Your task to perform on an android device: What's the weather? Image 0: 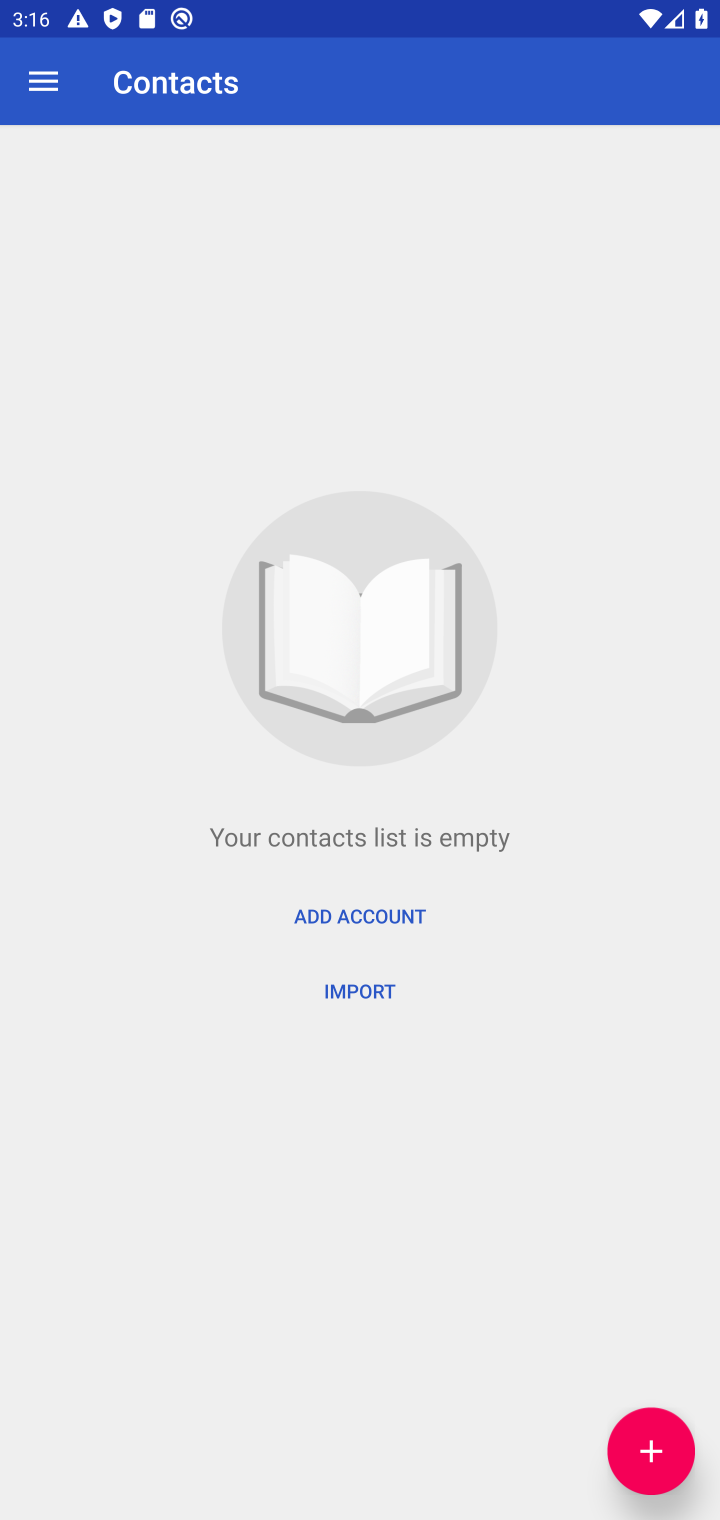
Step 0: press home button
Your task to perform on an android device: What's the weather? Image 1: 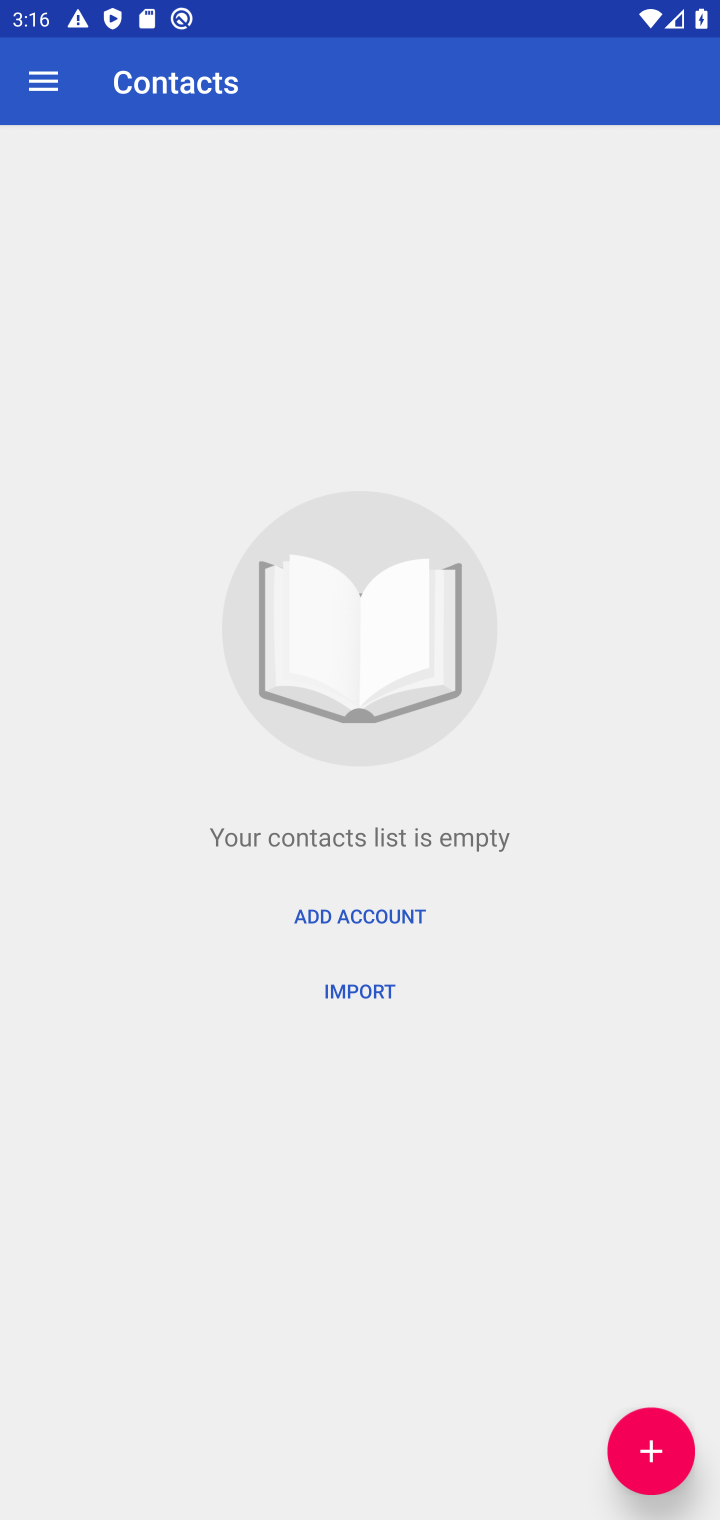
Step 1: press home button
Your task to perform on an android device: What's the weather? Image 2: 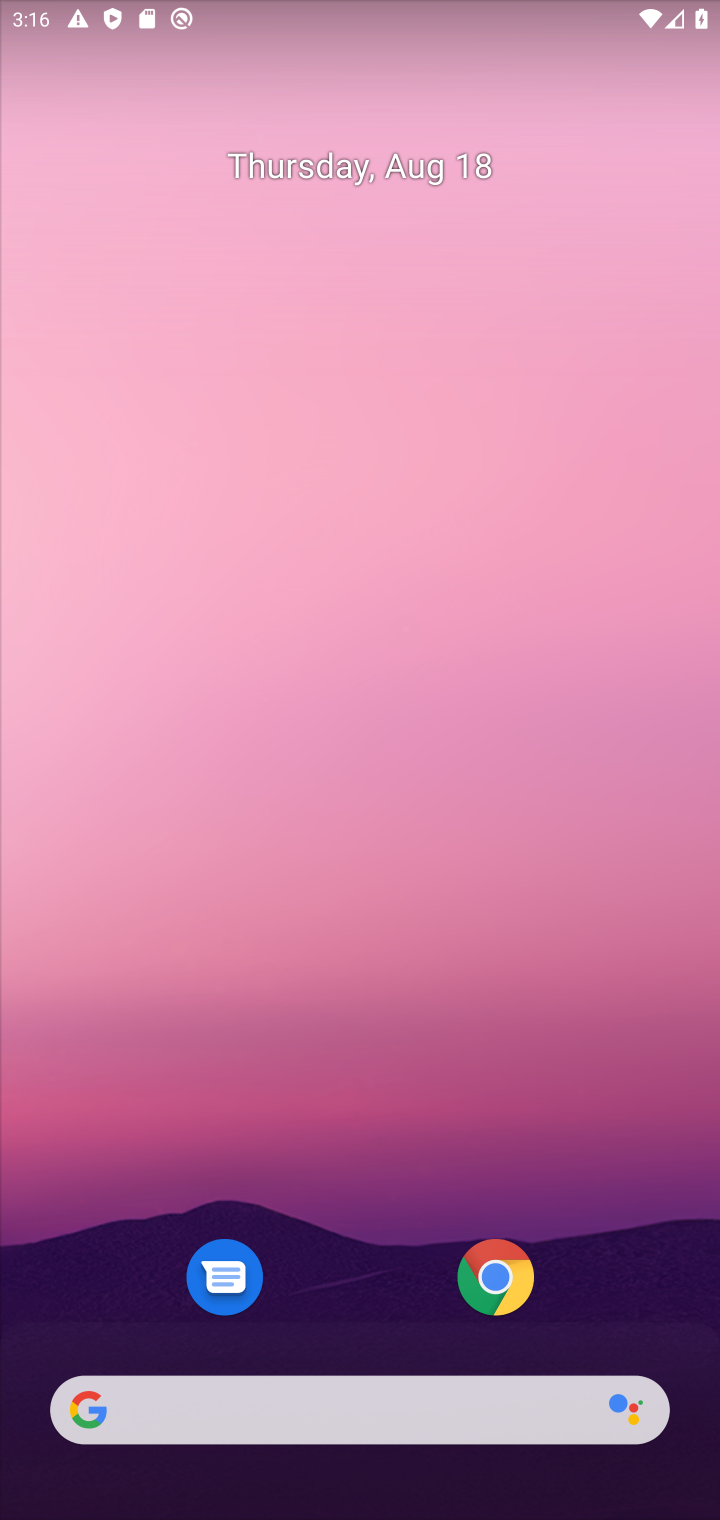
Step 2: press home button
Your task to perform on an android device: What's the weather? Image 3: 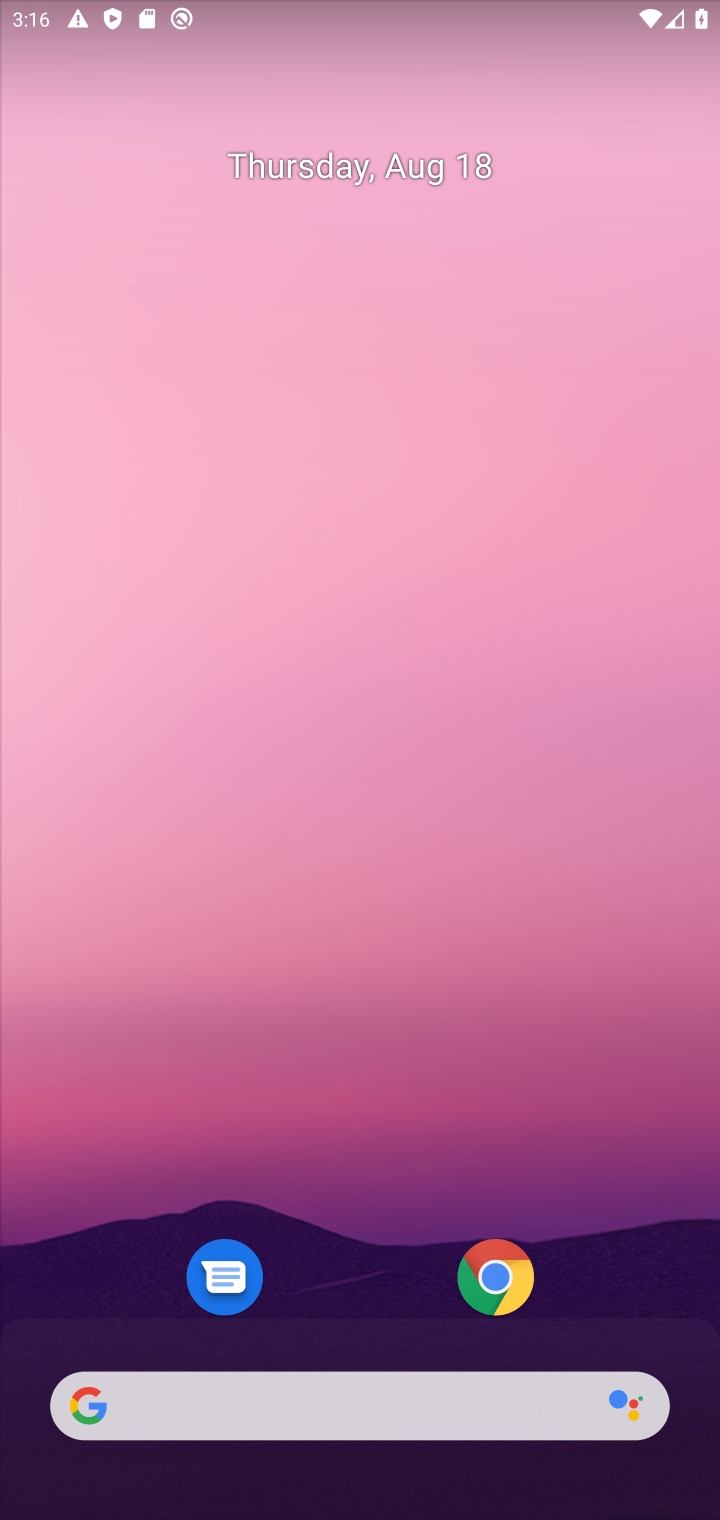
Step 3: click (420, 1426)
Your task to perform on an android device: What's the weather? Image 4: 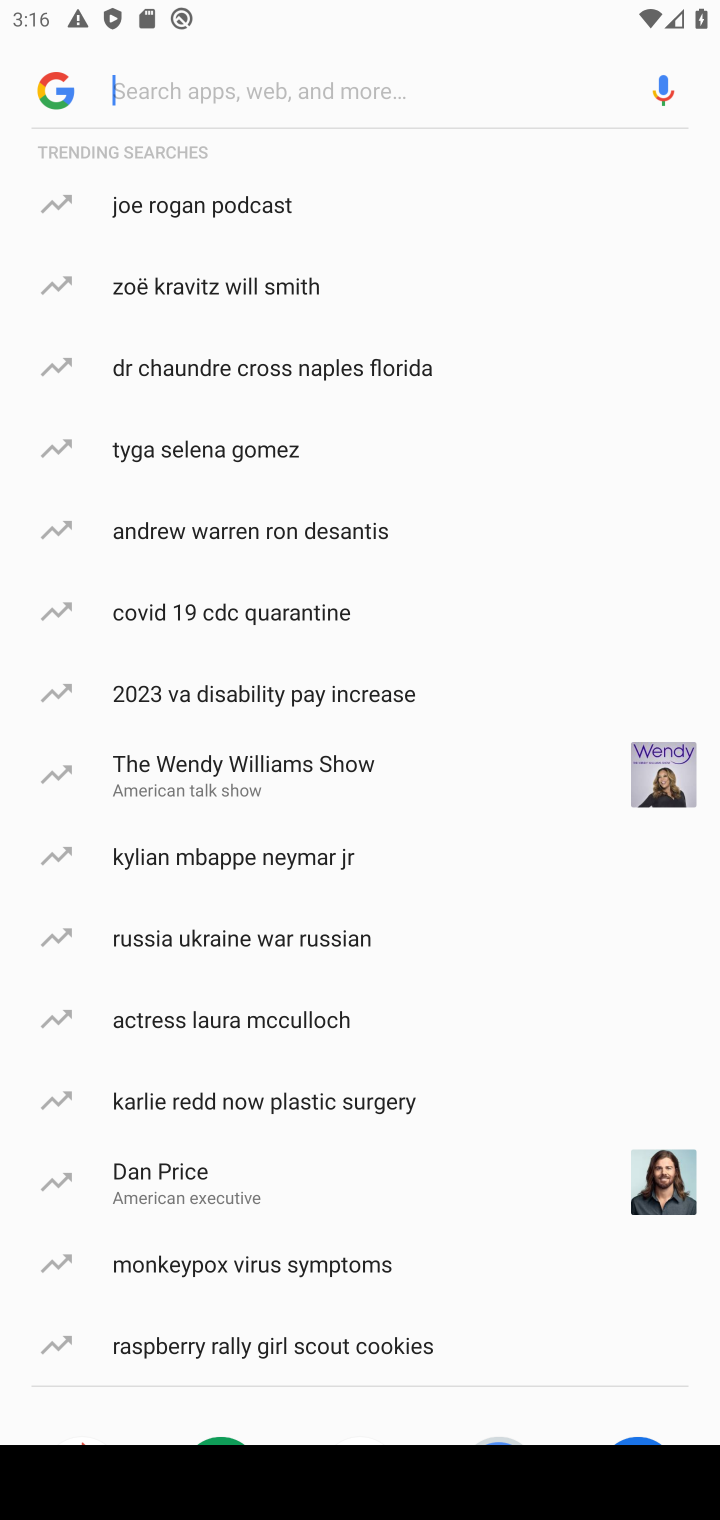
Step 4: type "What's the weather?"
Your task to perform on an android device: What's the weather? Image 5: 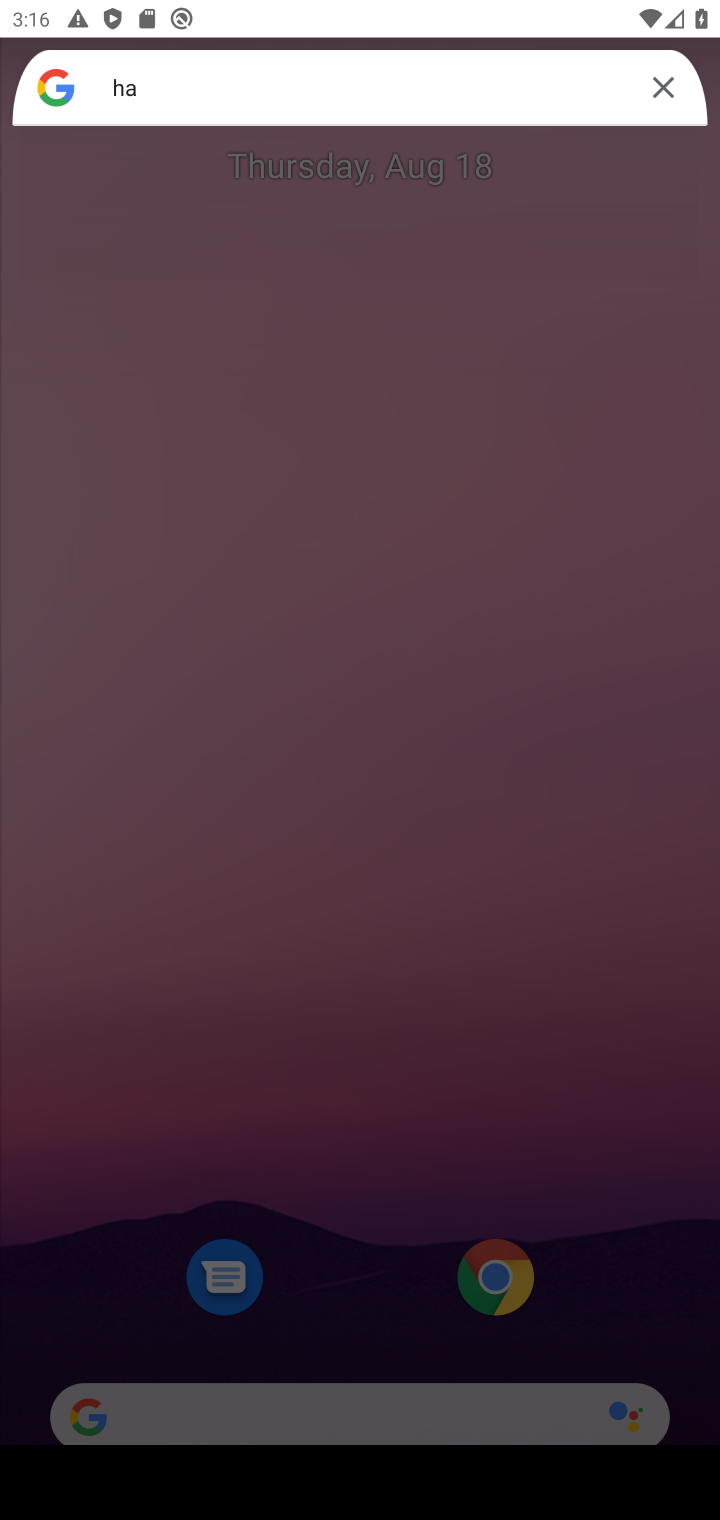
Step 5: press enter
Your task to perform on an android device: What's the weather? Image 6: 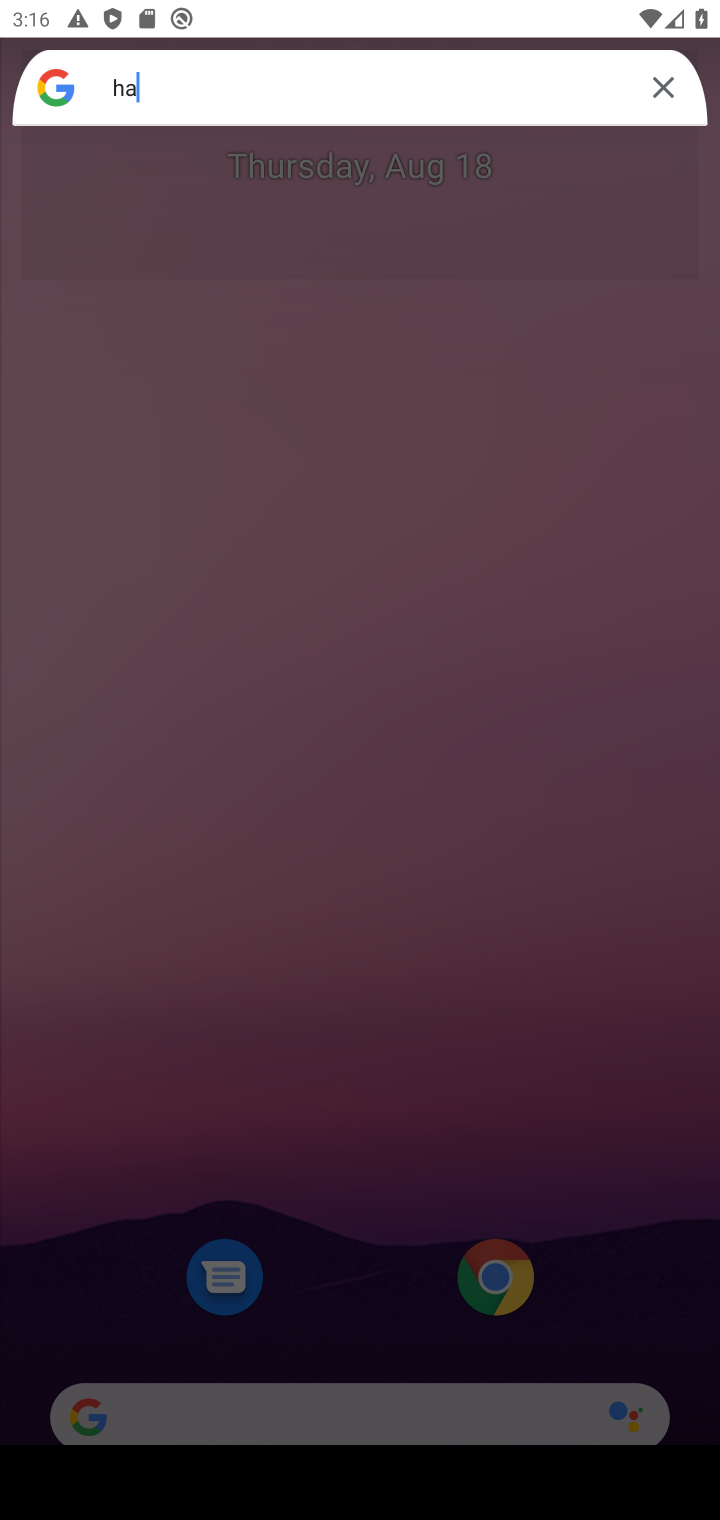
Step 6: type ""
Your task to perform on an android device: What's the weather? Image 7: 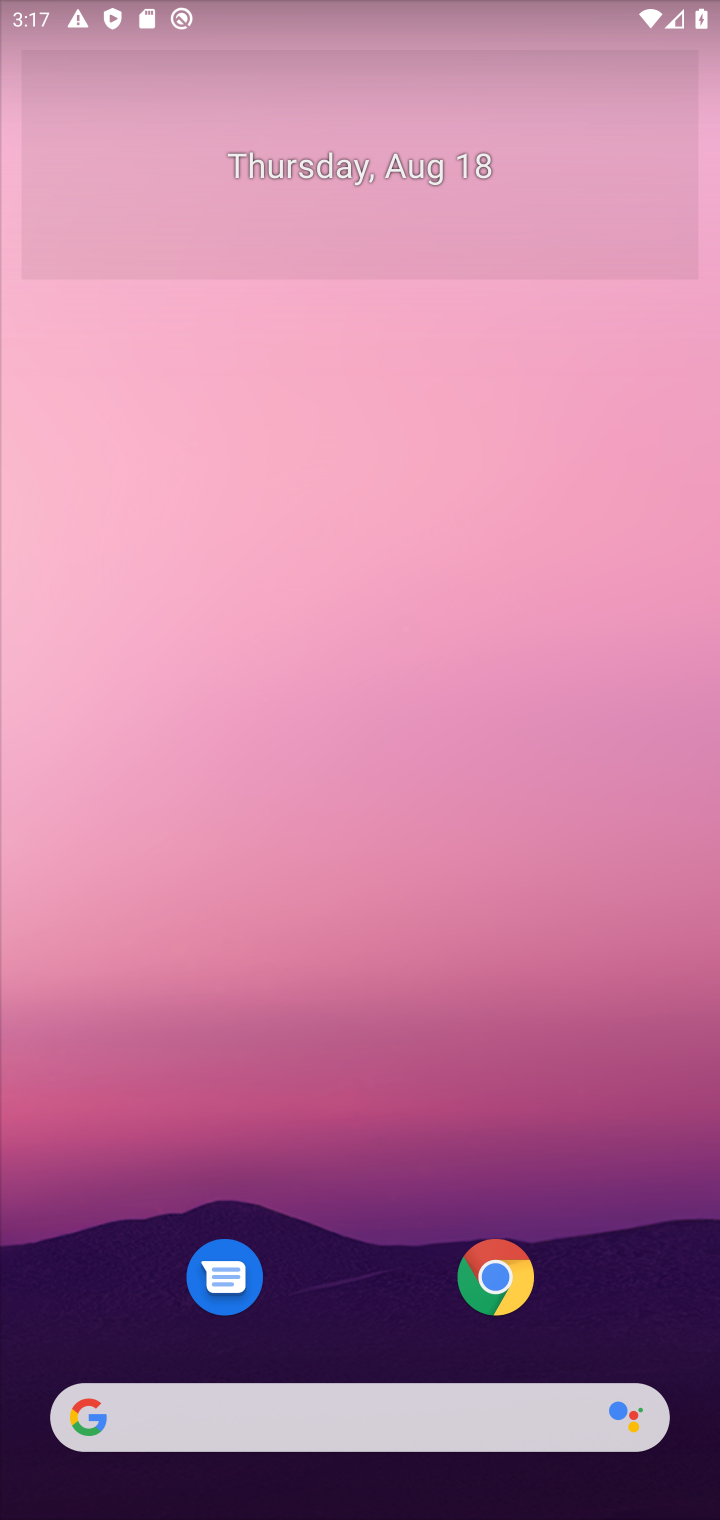
Step 7: task complete